Your task to perform on an android device: toggle javascript in the chrome app Image 0: 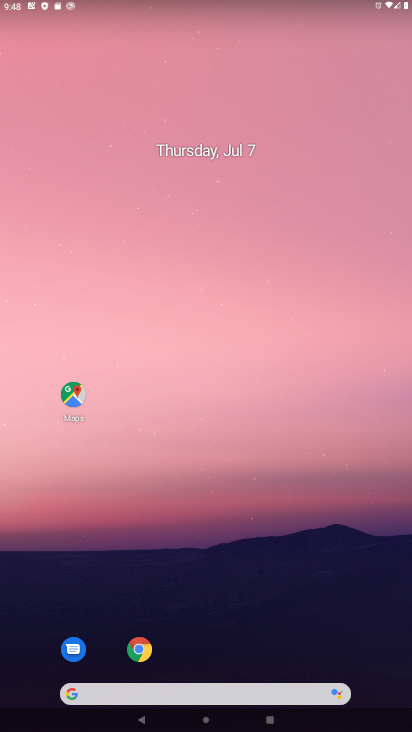
Step 0: click (138, 652)
Your task to perform on an android device: toggle javascript in the chrome app Image 1: 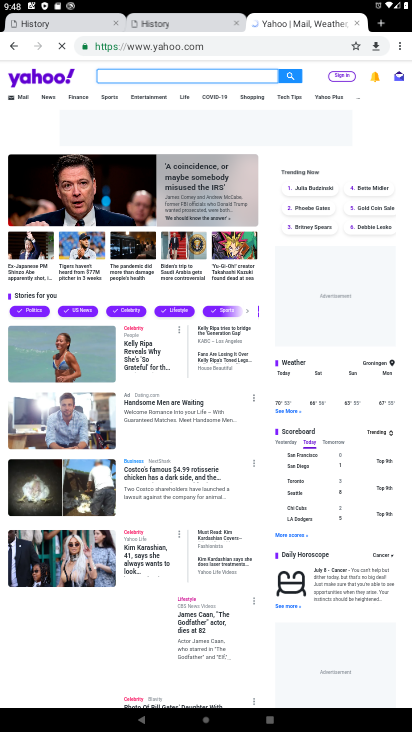
Step 1: click (397, 43)
Your task to perform on an android device: toggle javascript in the chrome app Image 2: 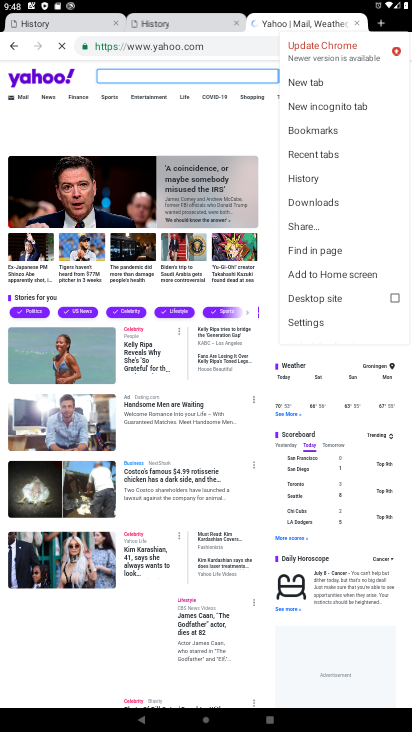
Step 2: click (305, 321)
Your task to perform on an android device: toggle javascript in the chrome app Image 3: 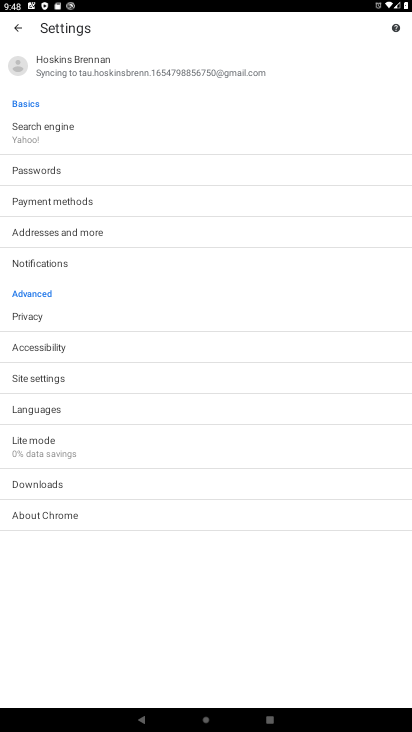
Step 3: click (42, 381)
Your task to perform on an android device: toggle javascript in the chrome app Image 4: 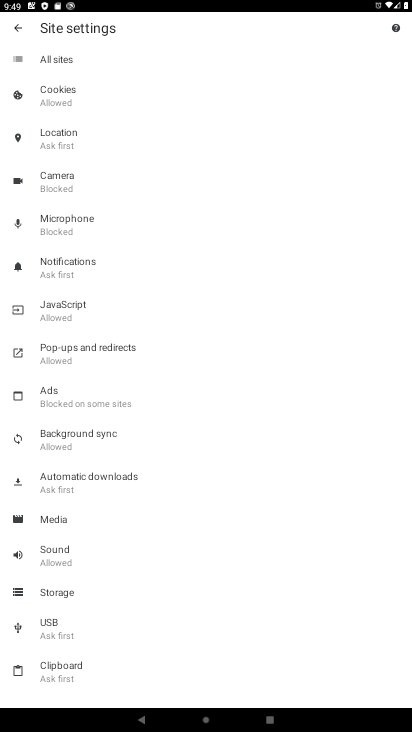
Step 4: click (69, 307)
Your task to perform on an android device: toggle javascript in the chrome app Image 5: 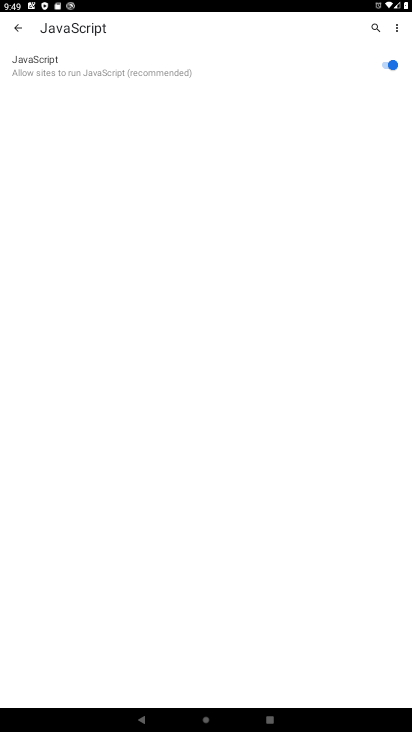
Step 5: click (384, 57)
Your task to perform on an android device: toggle javascript in the chrome app Image 6: 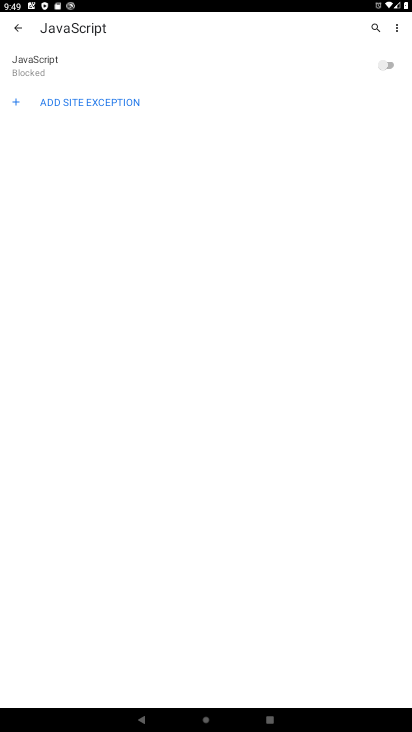
Step 6: task complete